Your task to perform on an android device: turn on bluetooth scan Image 0: 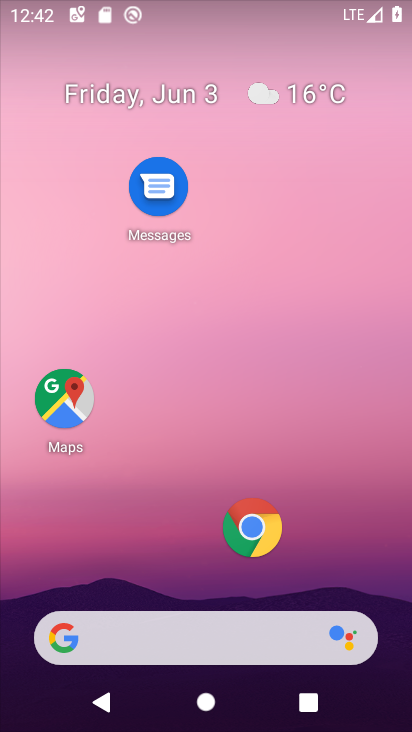
Step 0: press home button
Your task to perform on an android device: turn on bluetooth scan Image 1: 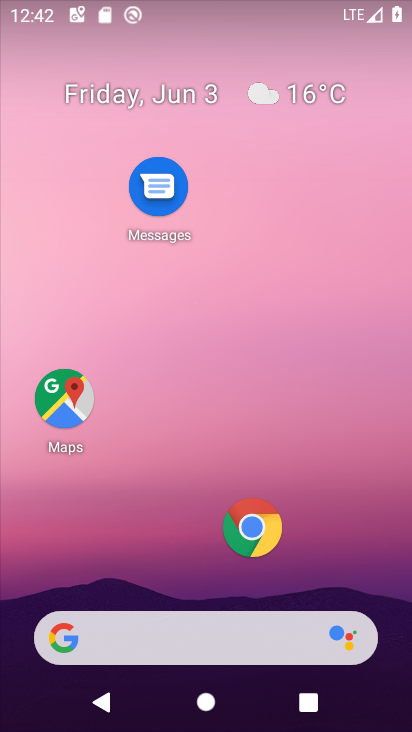
Step 1: drag from (312, 580) to (390, 51)
Your task to perform on an android device: turn on bluetooth scan Image 2: 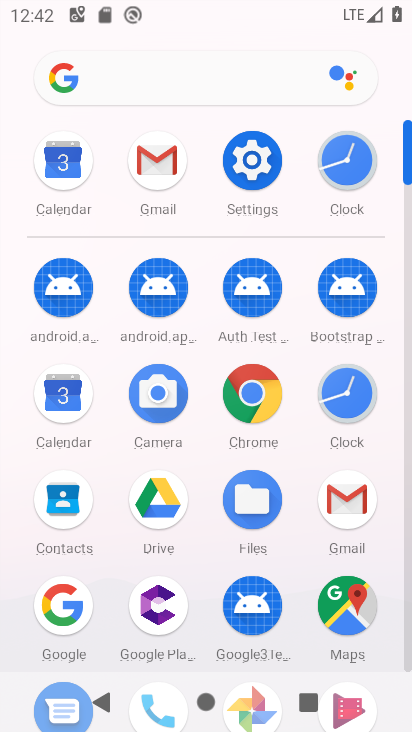
Step 2: click (244, 152)
Your task to perform on an android device: turn on bluetooth scan Image 3: 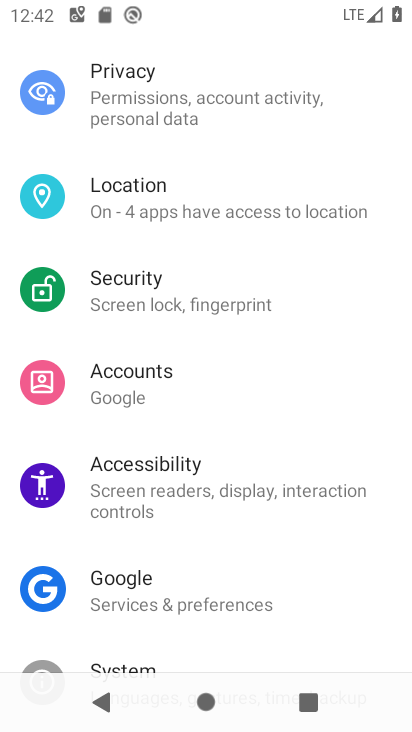
Step 3: click (197, 191)
Your task to perform on an android device: turn on bluetooth scan Image 4: 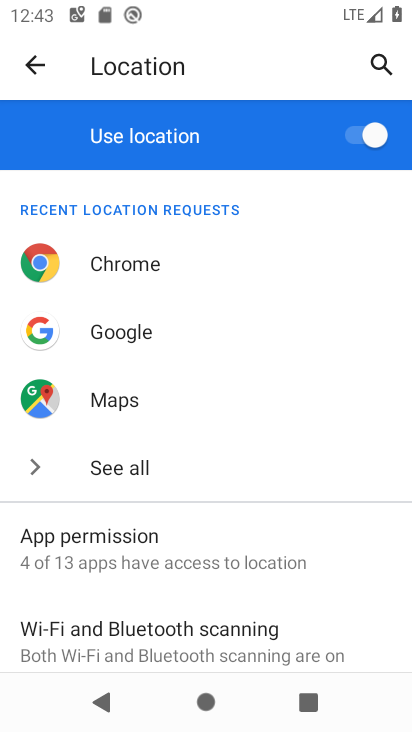
Step 4: click (280, 636)
Your task to perform on an android device: turn on bluetooth scan Image 5: 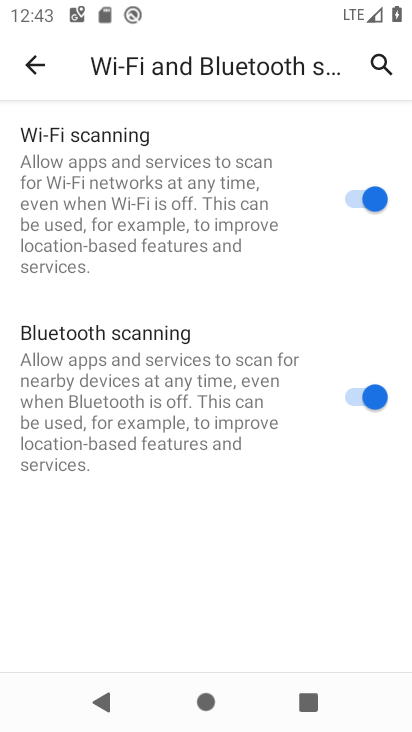
Step 5: task complete